Your task to perform on an android device: Open Google Chrome and open the bookmarks view Image 0: 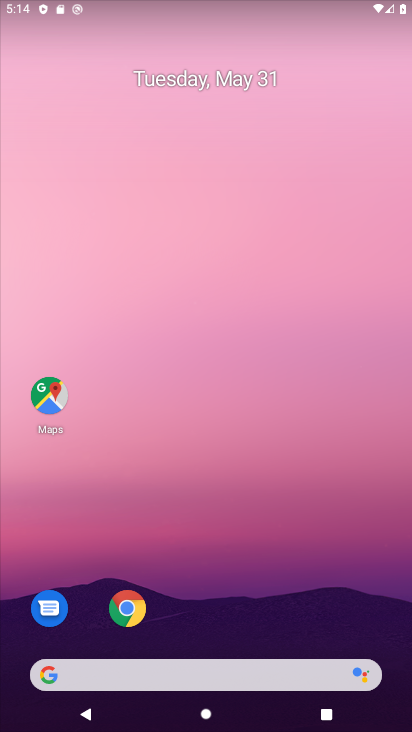
Step 0: click (127, 608)
Your task to perform on an android device: Open Google Chrome and open the bookmarks view Image 1: 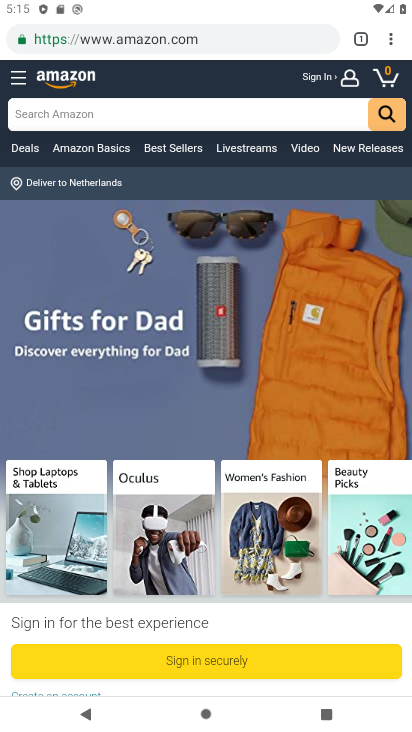
Step 1: click (390, 37)
Your task to perform on an android device: Open Google Chrome and open the bookmarks view Image 2: 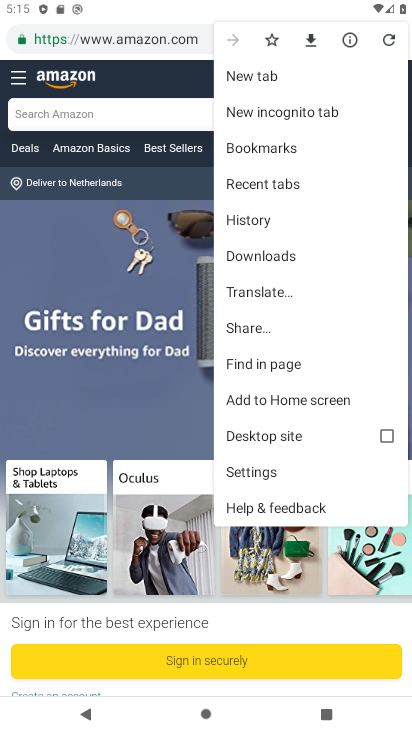
Step 2: click (285, 146)
Your task to perform on an android device: Open Google Chrome and open the bookmarks view Image 3: 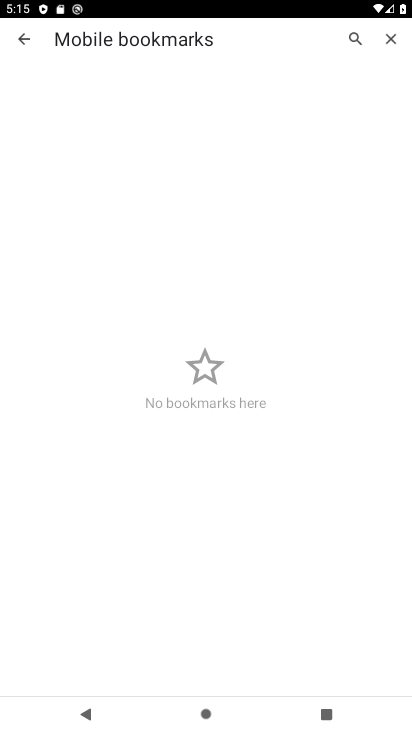
Step 3: task complete